Your task to perform on an android device: Go to CNN.com Image 0: 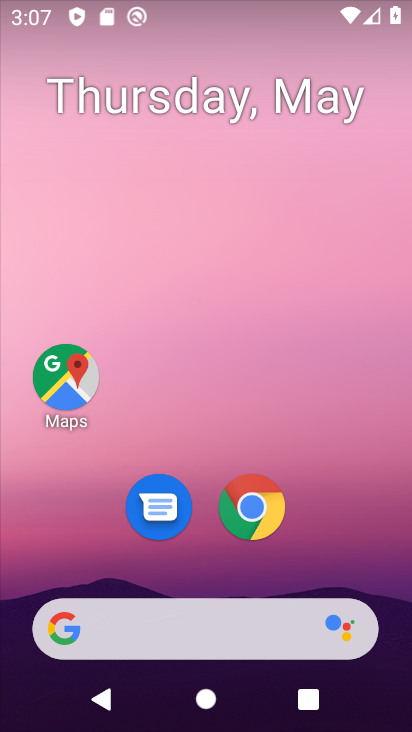
Step 0: click (248, 504)
Your task to perform on an android device: Go to CNN.com Image 1: 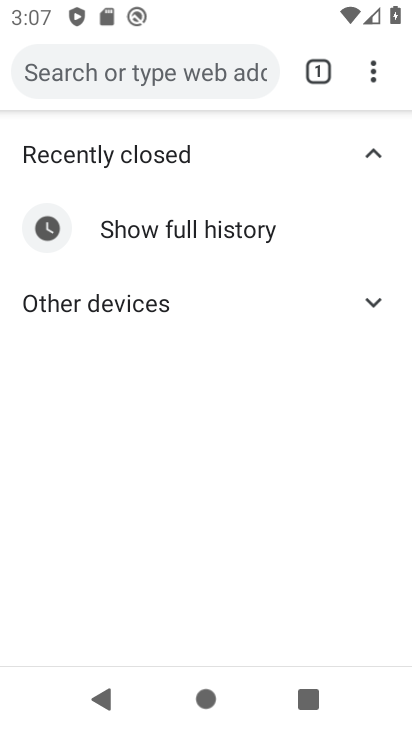
Step 1: drag from (372, 71) to (167, 152)
Your task to perform on an android device: Go to CNN.com Image 2: 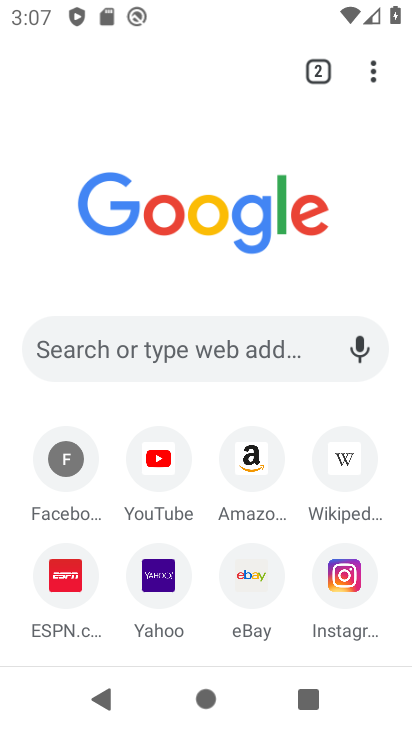
Step 2: click (145, 343)
Your task to perform on an android device: Go to CNN.com Image 3: 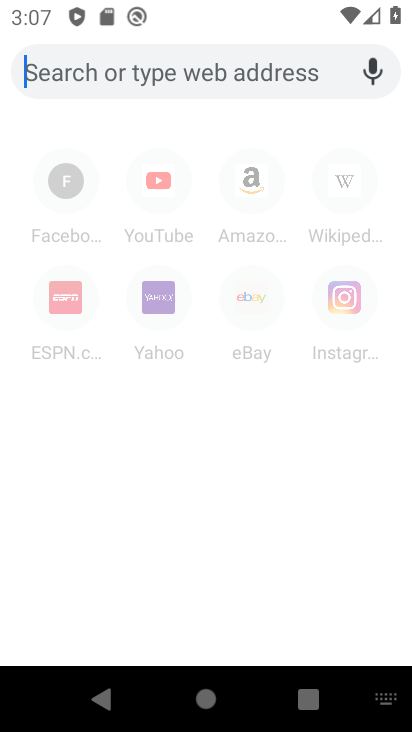
Step 3: type " CNN.com"
Your task to perform on an android device: Go to CNN.com Image 4: 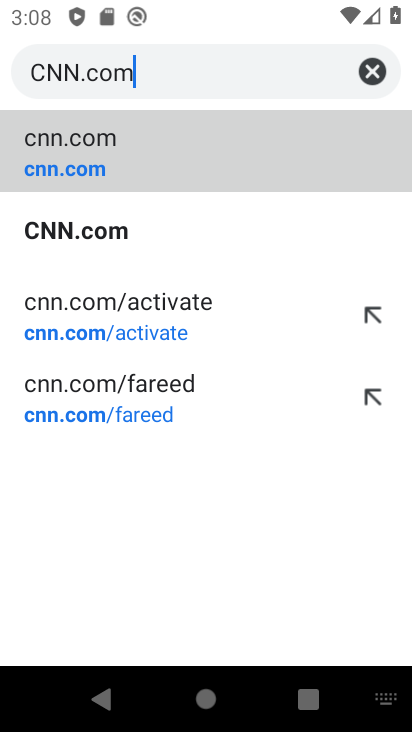
Step 4: click (45, 162)
Your task to perform on an android device: Go to CNN.com Image 5: 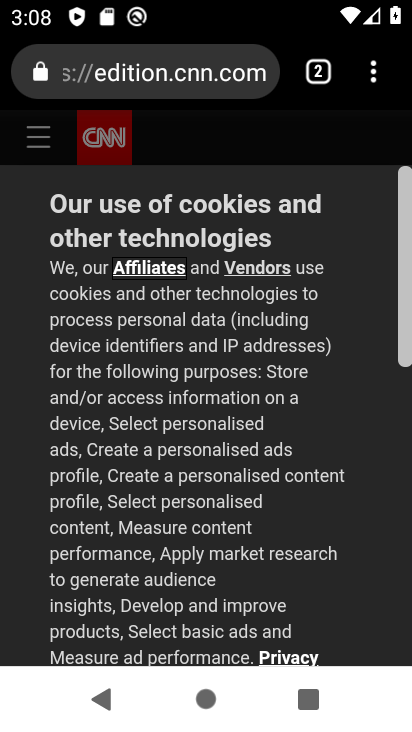
Step 5: task complete